Your task to perform on an android device: check battery use Image 0: 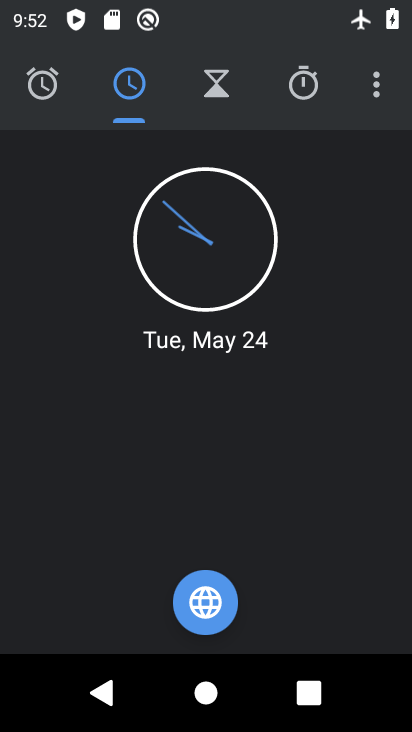
Step 0: press home button
Your task to perform on an android device: check battery use Image 1: 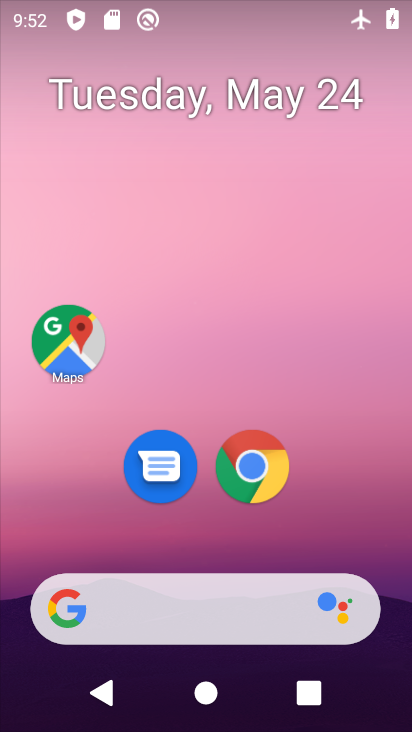
Step 1: drag from (208, 515) to (224, 154)
Your task to perform on an android device: check battery use Image 2: 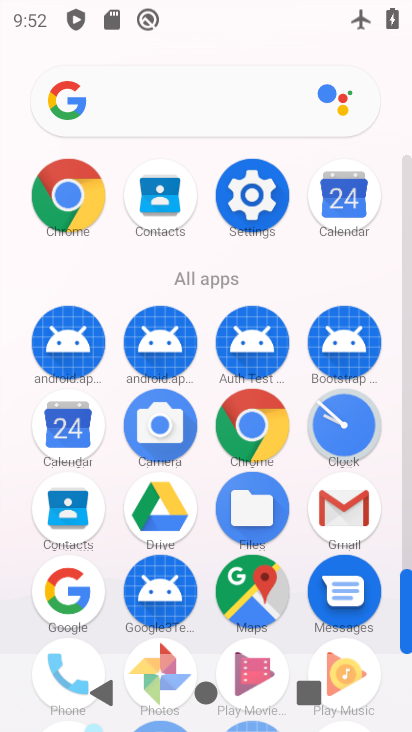
Step 2: click (252, 190)
Your task to perform on an android device: check battery use Image 3: 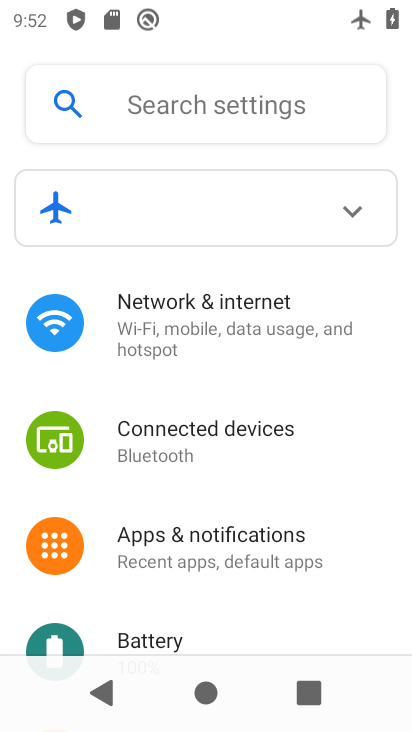
Step 3: drag from (221, 575) to (238, 487)
Your task to perform on an android device: check battery use Image 4: 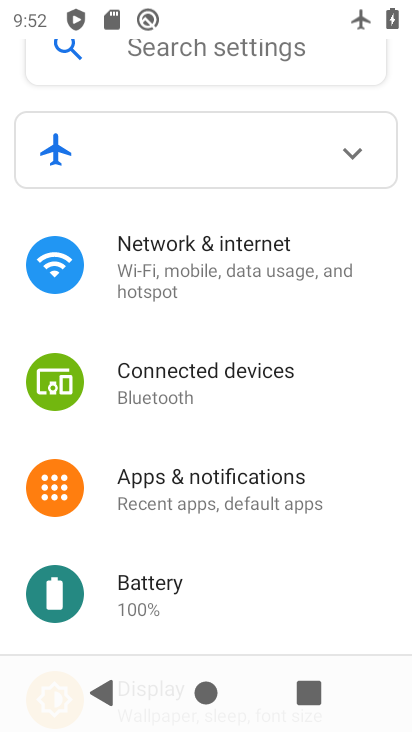
Step 4: click (176, 587)
Your task to perform on an android device: check battery use Image 5: 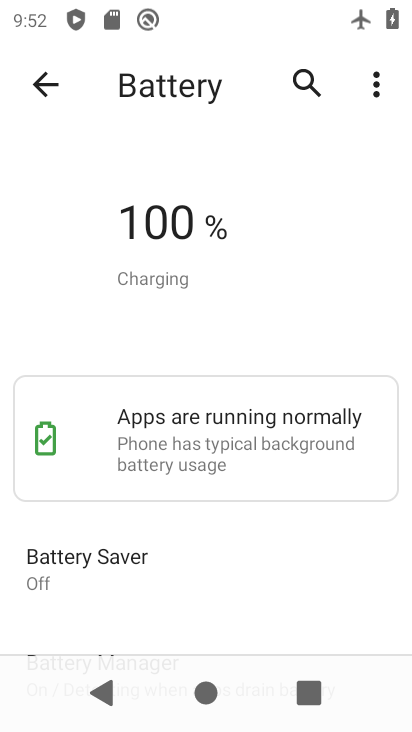
Step 5: click (376, 83)
Your task to perform on an android device: check battery use Image 6: 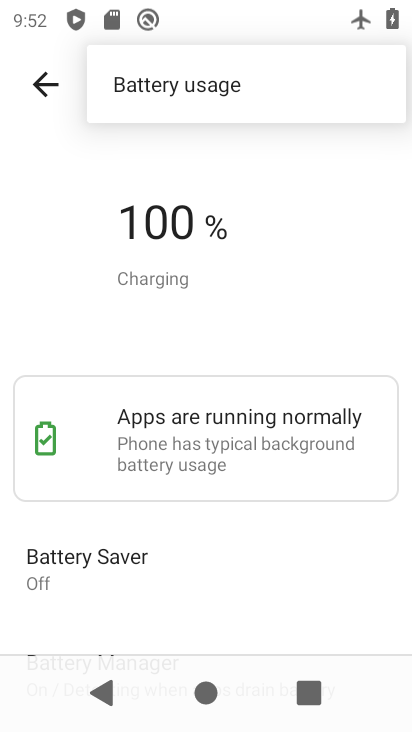
Step 6: click (248, 95)
Your task to perform on an android device: check battery use Image 7: 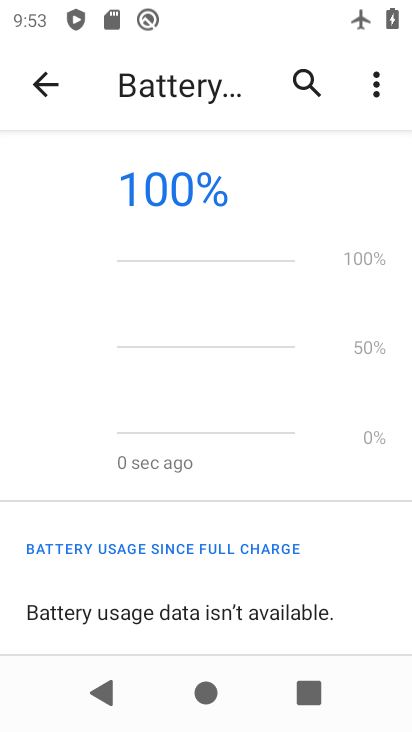
Step 7: task complete